Your task to perform on an android device: turn off priority inbox in the gmail app Image 0: 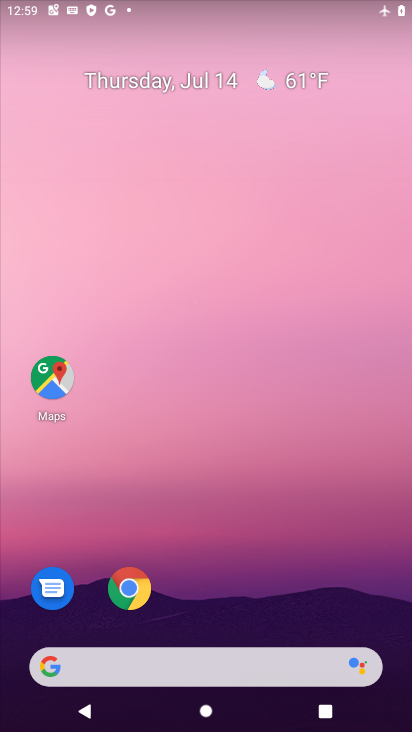
Step 0: drag from (226, 569) to (225, 60)
Your task to perform on an android device: turn off priority inbox in the gmail app Image 1: 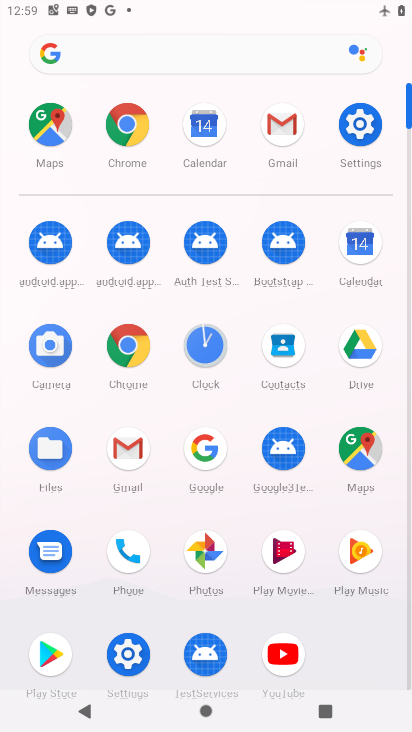
Step 1: click (129, 465)
Your task to perform on an android device: turn off priority inbox in the gmail app Image 2: 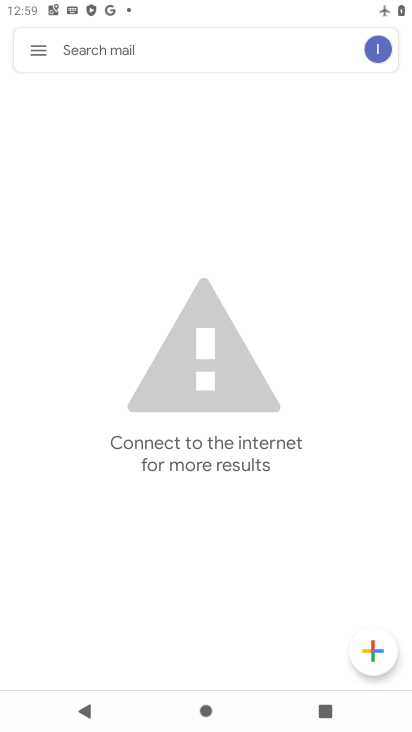
Step 2: click (36, 53)
Your task to perform on an android device: turn off priority inbox in the gmail app Image 3: 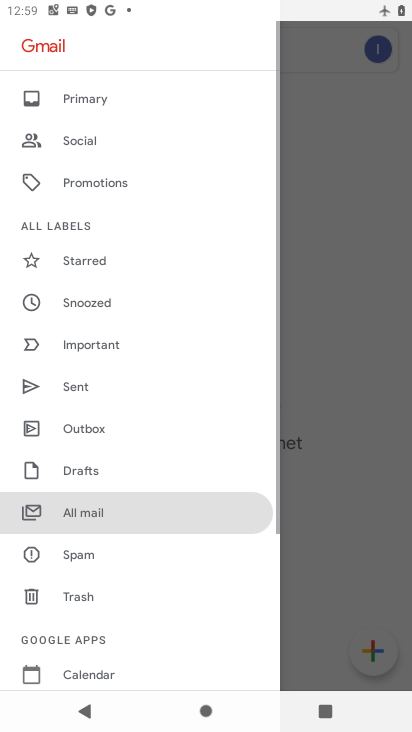
Step 3: drag from (92, 640) to (145, 151)
Your task to perform on an android device: turn off priority inbox in the gmail app Image 4: 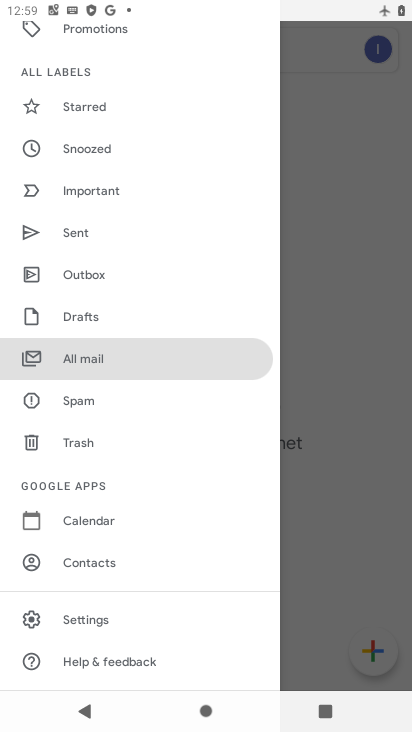
Step 4: click (80, 627)
Your task to perform on an android device: turn off priority inbox in the gmail app Image 5: 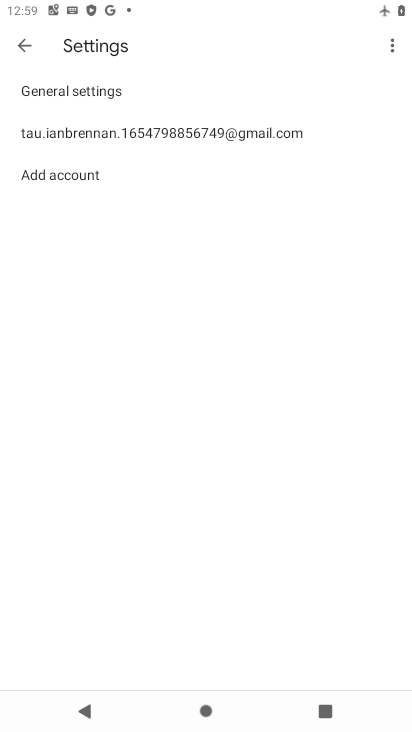
Step 5: click (81, 127)
Your task to perform on an android device: turn off priority inbox in the gmail app Image 6: 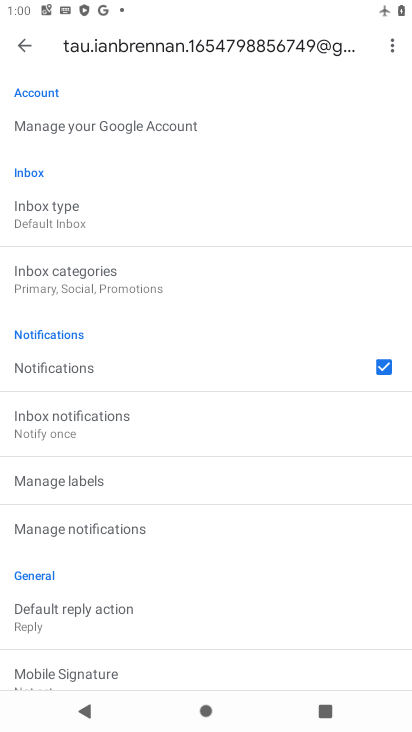
Step 6: click (84, 213)
Your task to perform on an android device: turn off priority inbox in the gmail app Image 7: 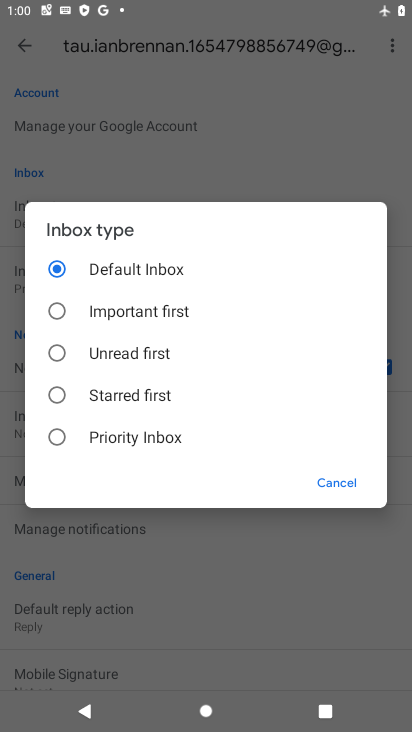
Step 7: click (105, 312)
Your task to perform on an android device: turn off priority inbox in the gmail app Image 8: 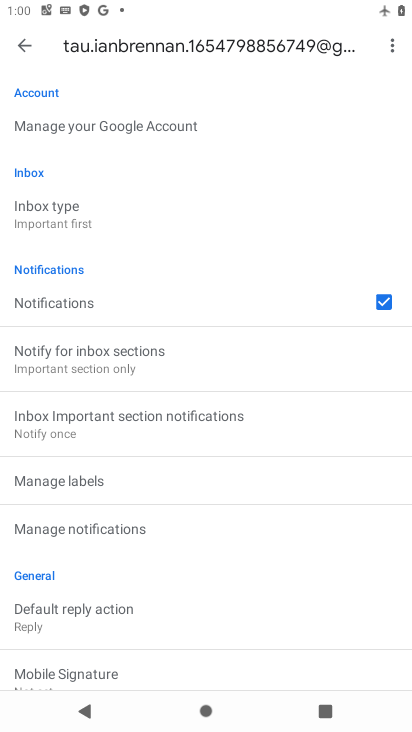
Step 8: task complete